Your task to perform on an android device: What's the weather today? Image 0: 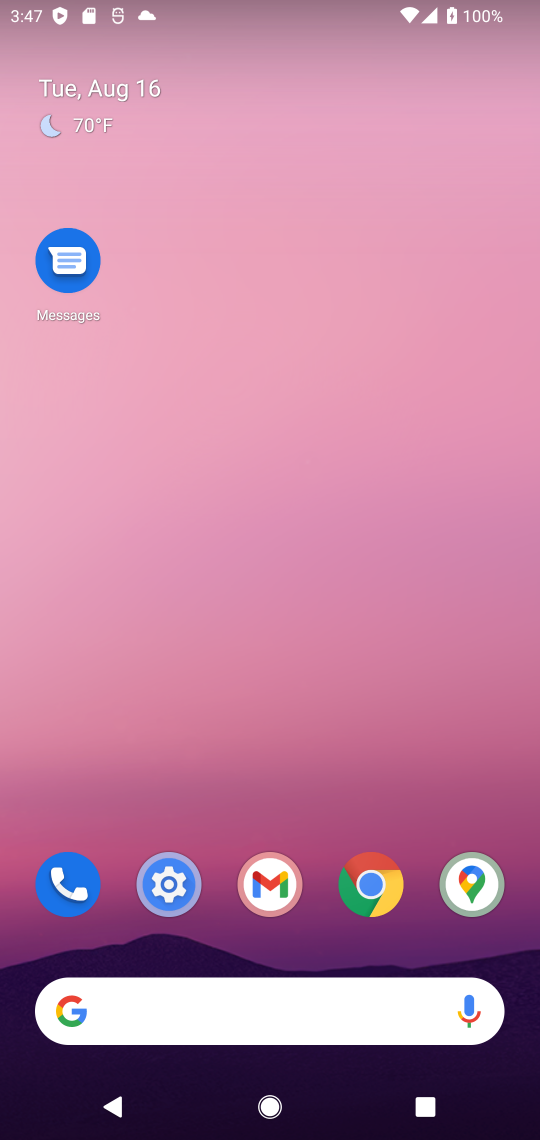
Step 0: click (142, 1024)
Your task to perform on an android device: What's the weather today? Image 1: 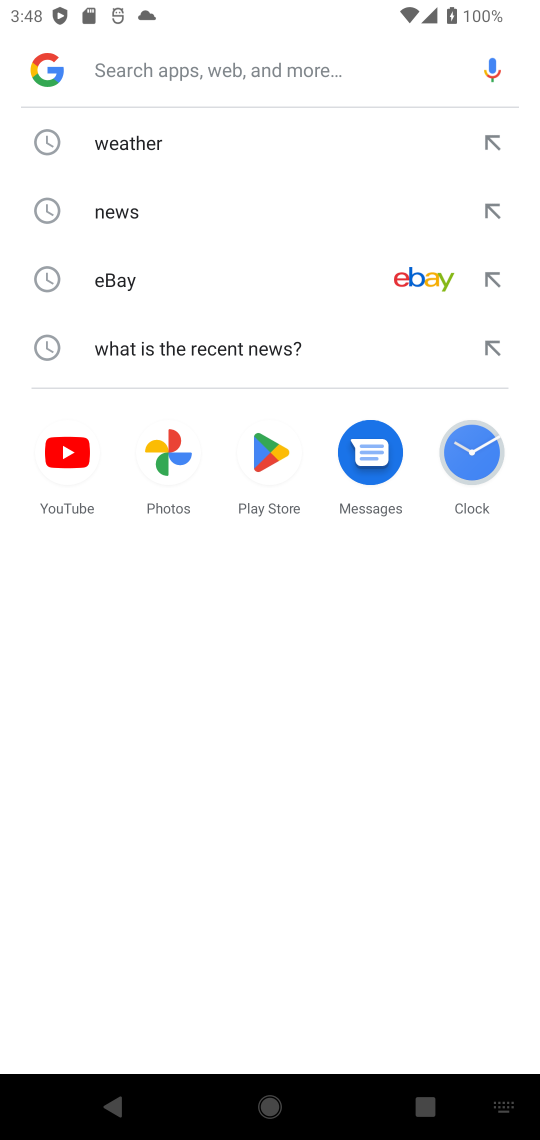
Step 1: type "What's the weather today?"
Your task to perform on an android device: What's the weather today? Image 2: 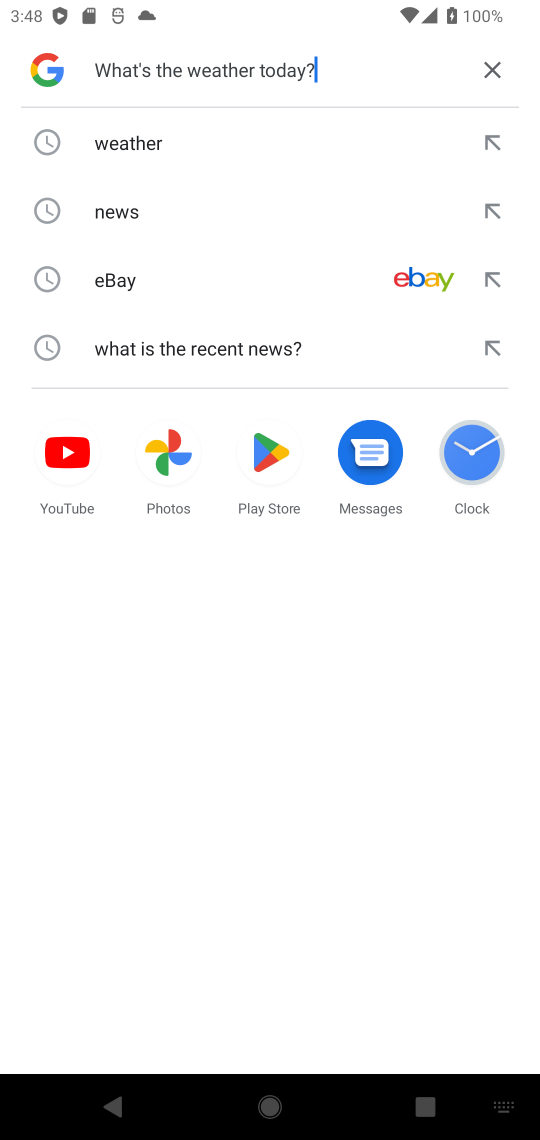
Step 2: type ""
Your task to perform on an android device: What's the weather today? Image 3: 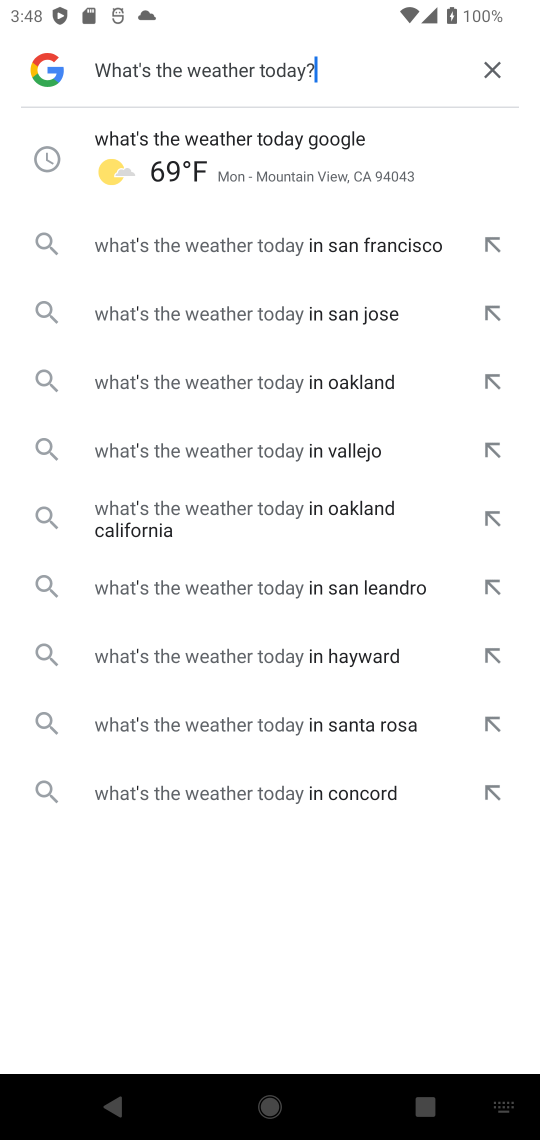
Step 3: type ""
Your task to perform on an android device: What's the weather today? Image 4: 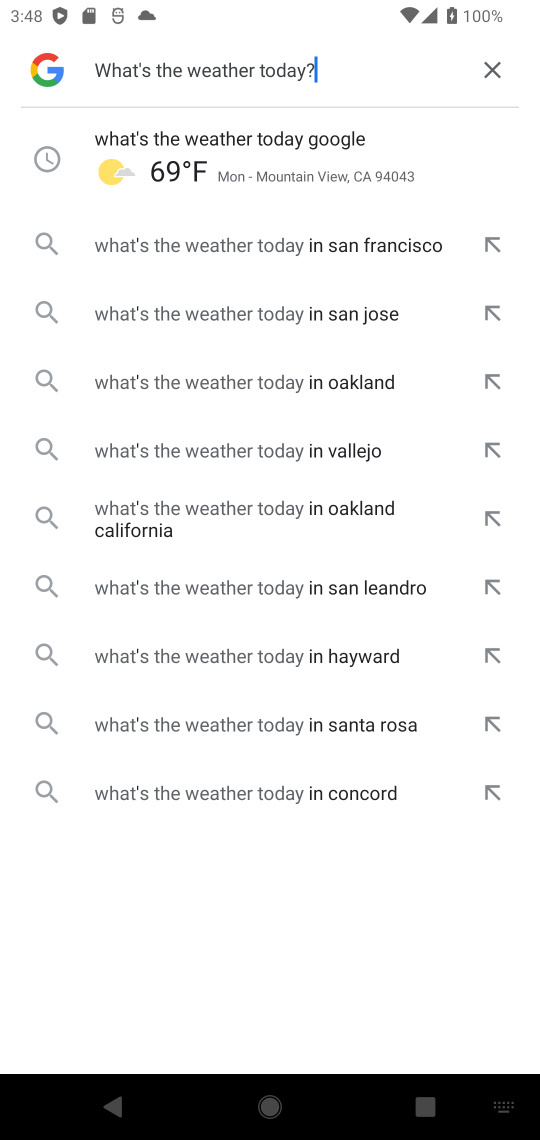
Step 4: type ""
Your task to perform on an android device: What's the weather today? Image 5: 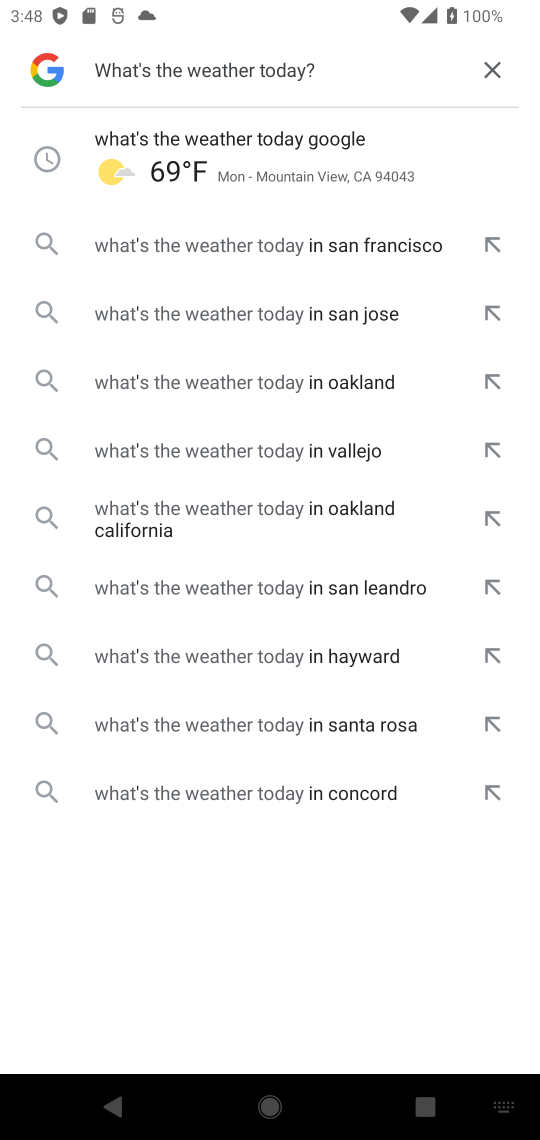
Step 5: type ""
Your task to perform on an android device: What's the weather today? Image 6: 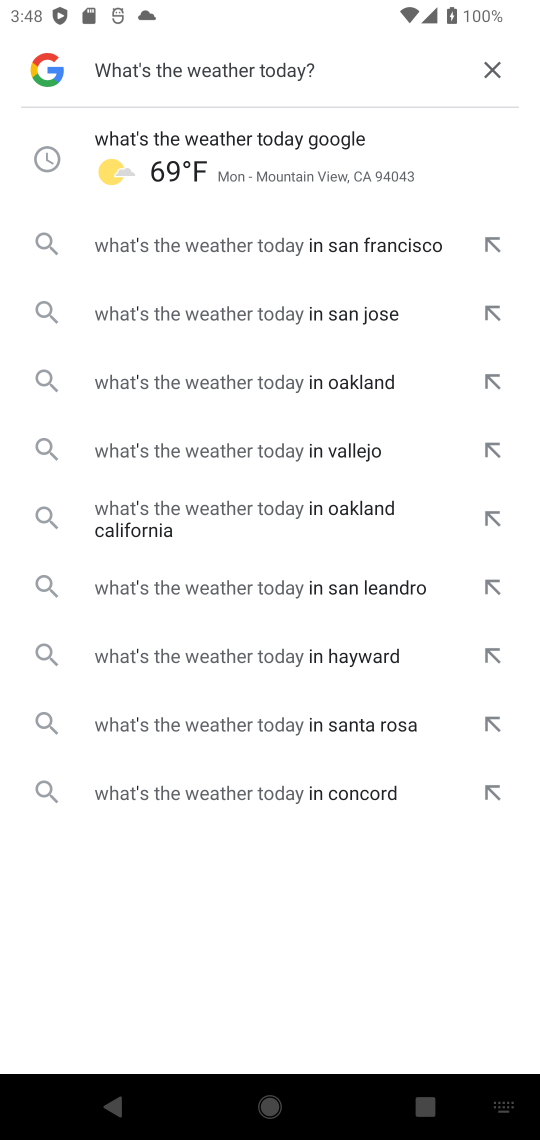
Step 6: task complete